Your task to perform on an android device: Open the calendar and show me this week's events Image 0: 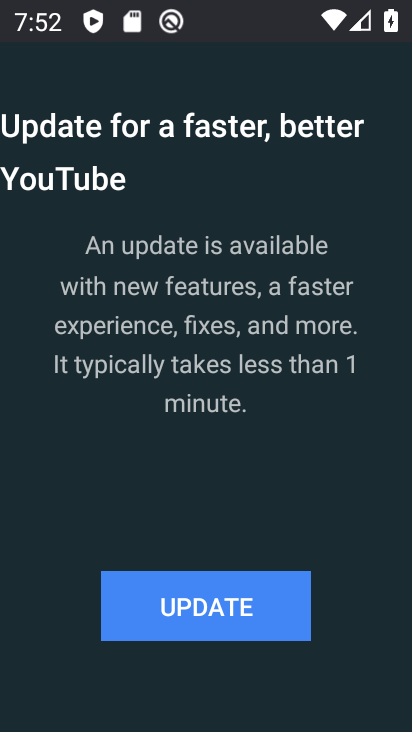
Step 0: press home button
Your task to perform on an android device: Open the calendar and show me this week's events Image 1: 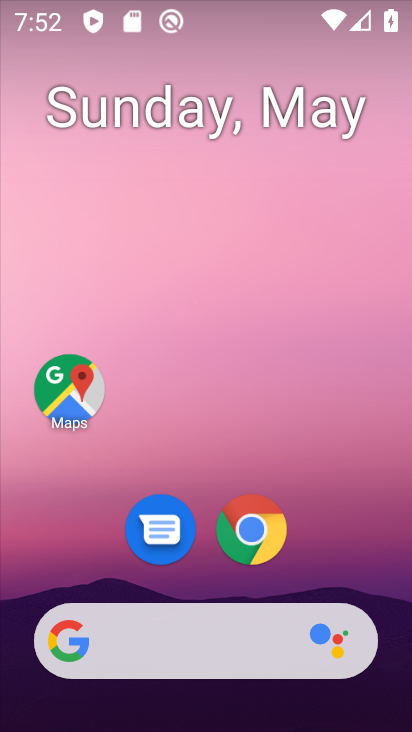
Step 1: drag from (227, 553) to (295, 40)
Your task to perform on an android device: Open the calendar and show me this week's events Image 2: 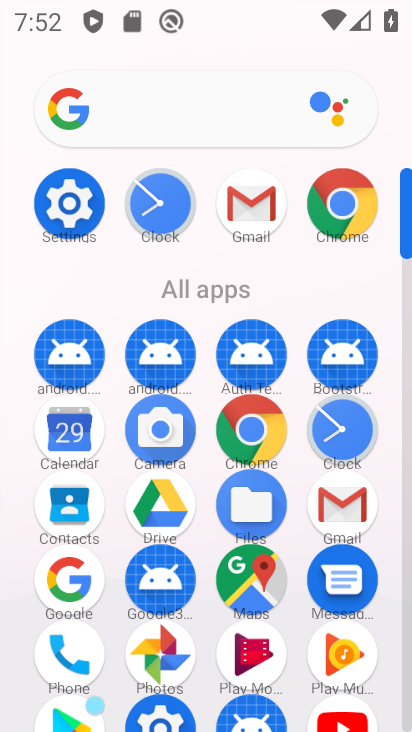
Step 2: click (77, 439)
Your task to perform on an android device: Open the calendar and show me this week's events Image 3: 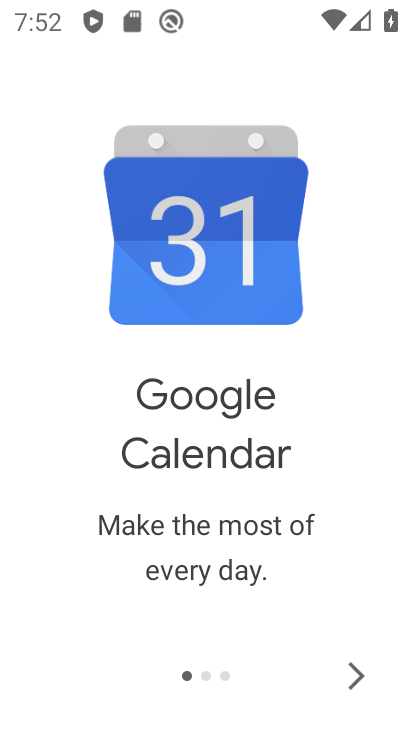
Step 3: click (344, 671)
Your task to perform on an android device: Open the calendar and show me this week's events Image 4: 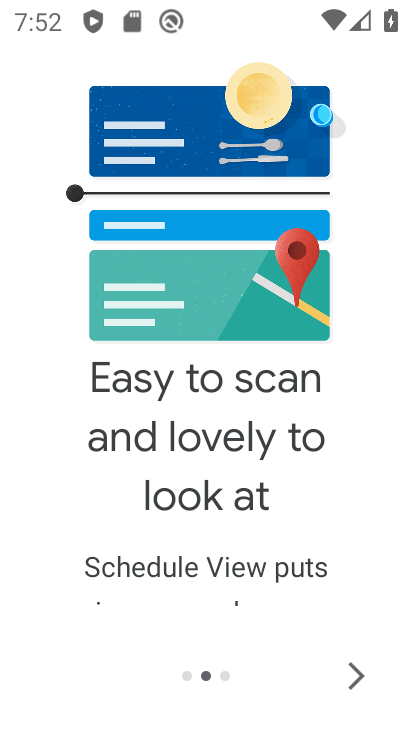
Step 4: click (344, 671)
Your task to perform on an android device: Open the calendar and show me this week's events Image 5: 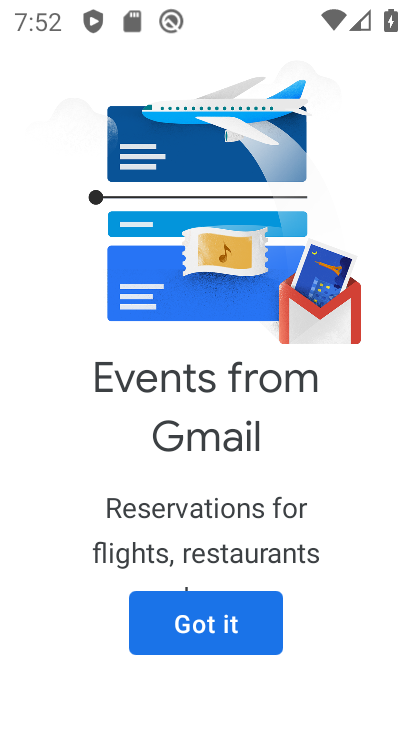
Step 5: click (234, 627)
Your task to perform on an android device: Open the calendar and show me this week's events Image 6: 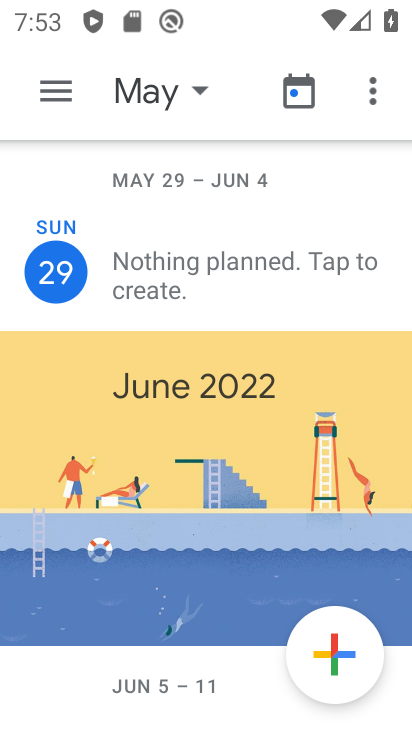
Step 6: drag from (170, 581) to (249, 101)
Your task to perform on an android device: Open the calendar and show me this week's events Image 7: 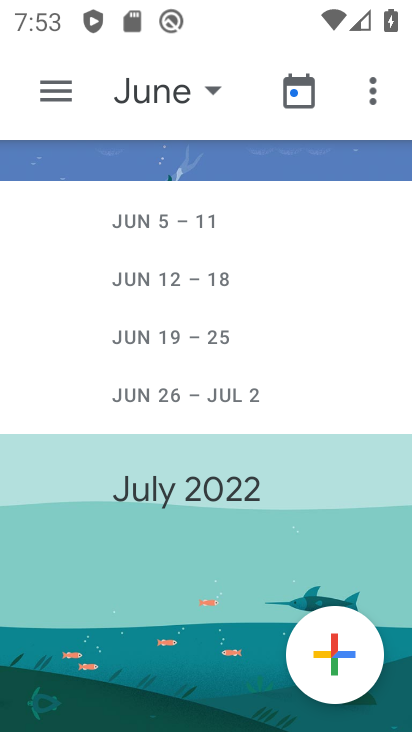
Step 7: click (54, 96)
Your task to perform on an android device: Open the calendar and show me this week's events Image 8: 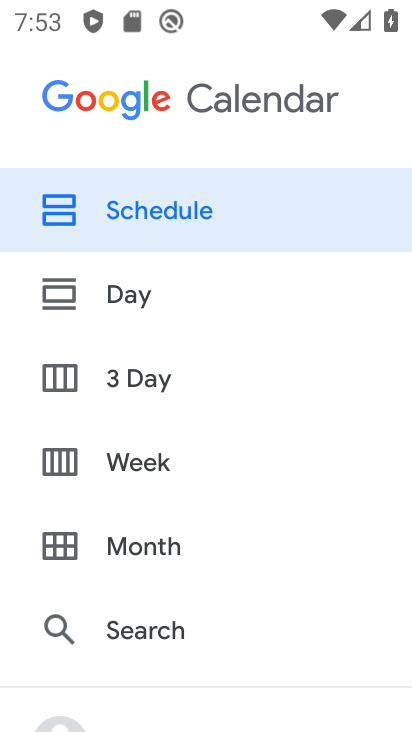
Step 8: click (143, 215)
Your task to perform on an android device: Open the calendar and show me this week's events Image 9: 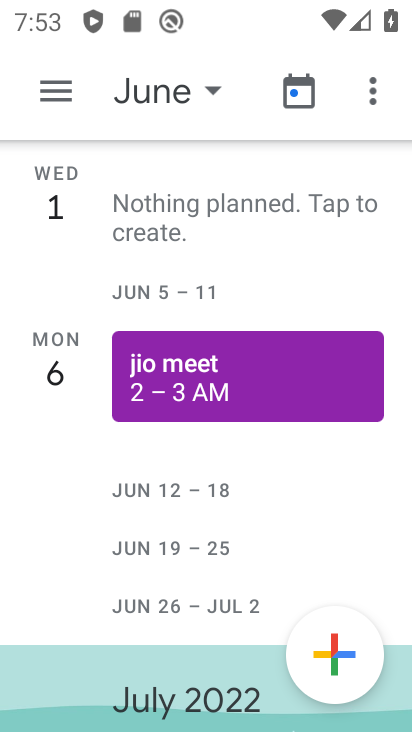
Step 9: drag from (195, 315) to (152, 721)
Your task to perform on an android device: Open the calendar and show me this week's events Image 10: 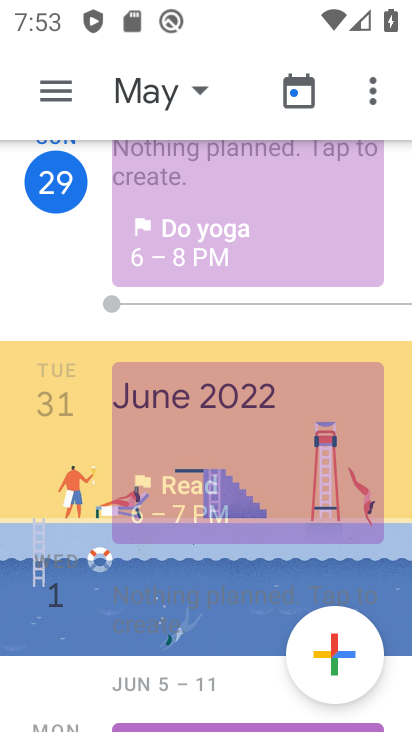
Step 10: click (201, 317)
Your task to perform on an android device: Open the calendar and show me this week's events Image 11: 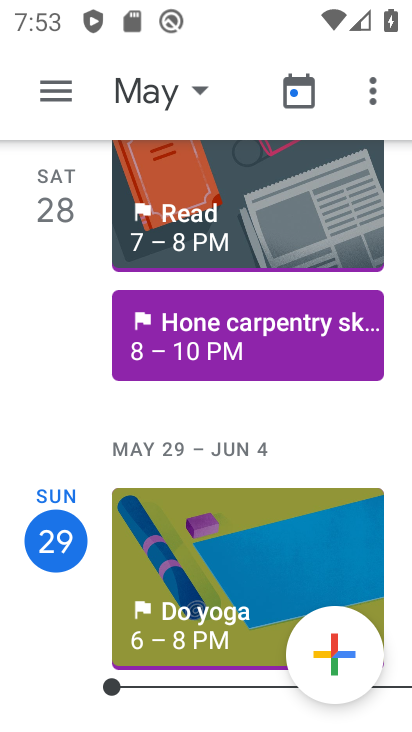
Step 11: drag from (157, 591) to (207, 200)
Your task to perform on an android device: Open the calendar and show me this week's events Image 12: 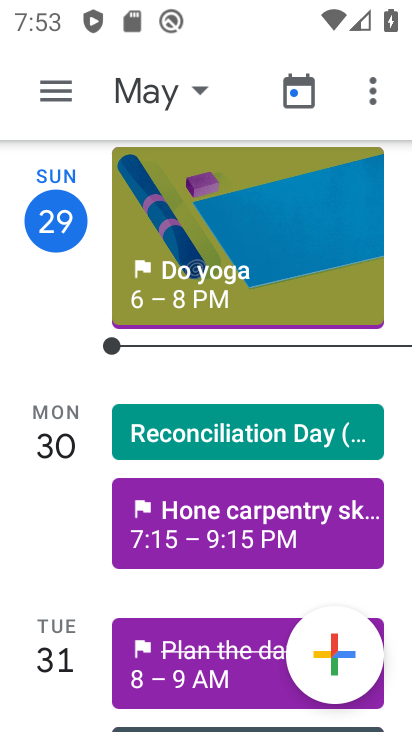
Step 12: click (204, 434)
Your task to perform on an android device: Open the calendar and show me this week's events Image 13: 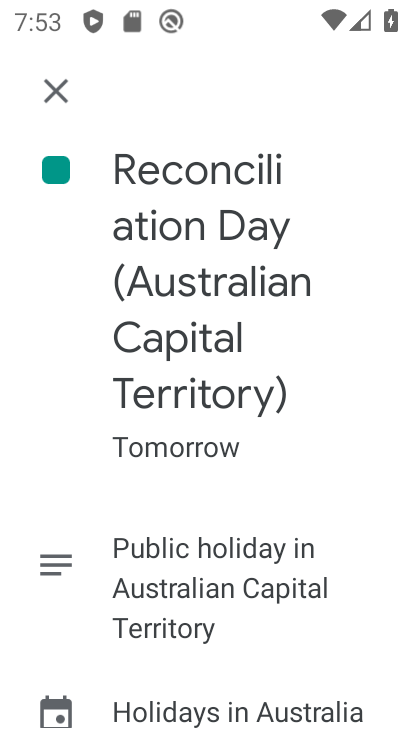
Step 13: task complete